Your task to perform on an android device: Go to CNN.com Image 0: 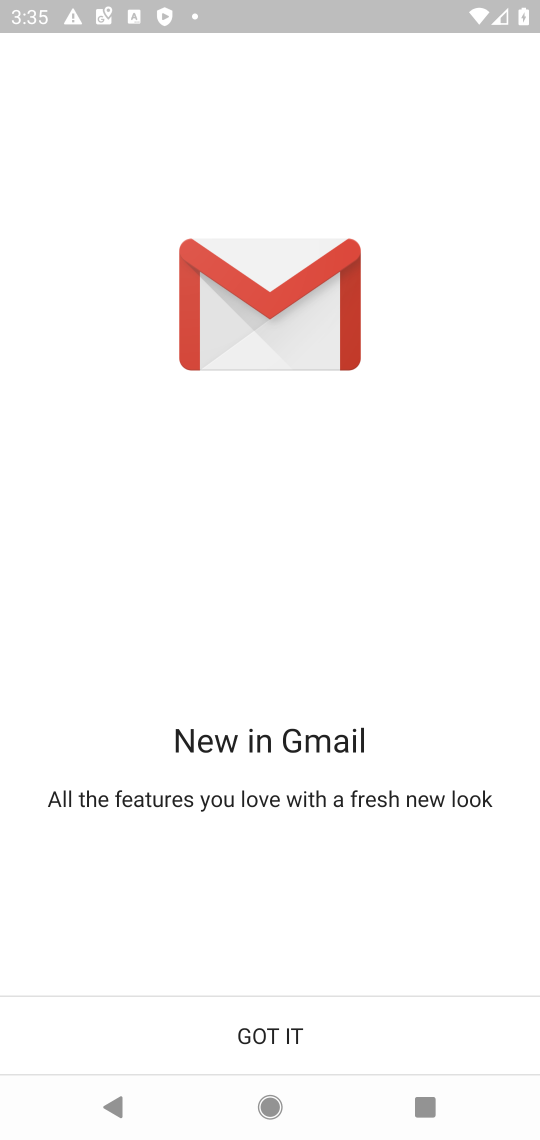
Step 0: click (336, 1115)
Your task to perform on an android device: Go to CNN.com Image 1: 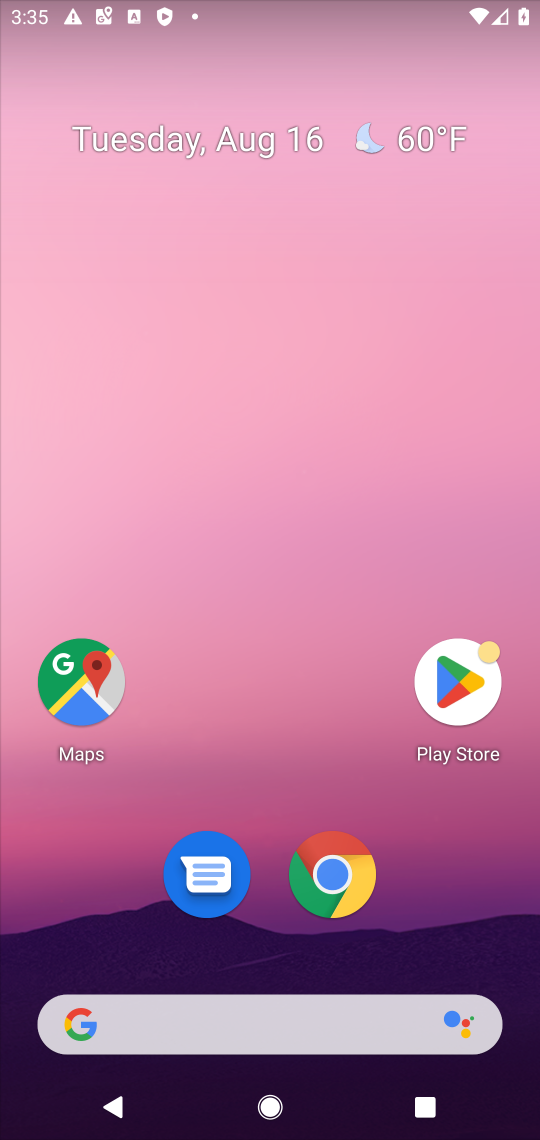
Step 1: click (347, 886)
Your task to perform on an android device: Go to CNN.com Image 2: 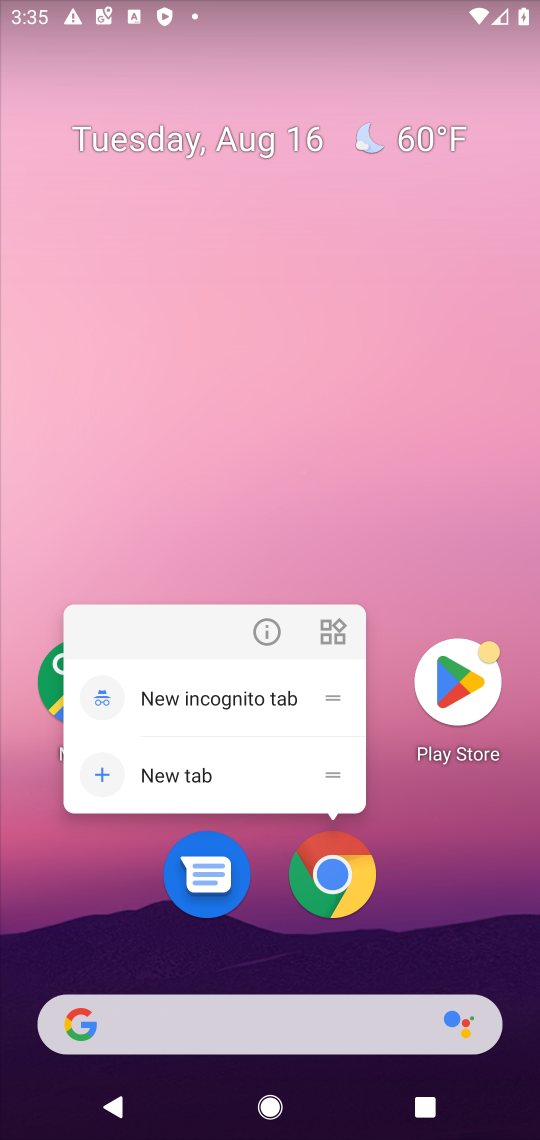
Step 2: click (327, 854)
Your task to perform on an android device: Go to CNN.com Image 3: 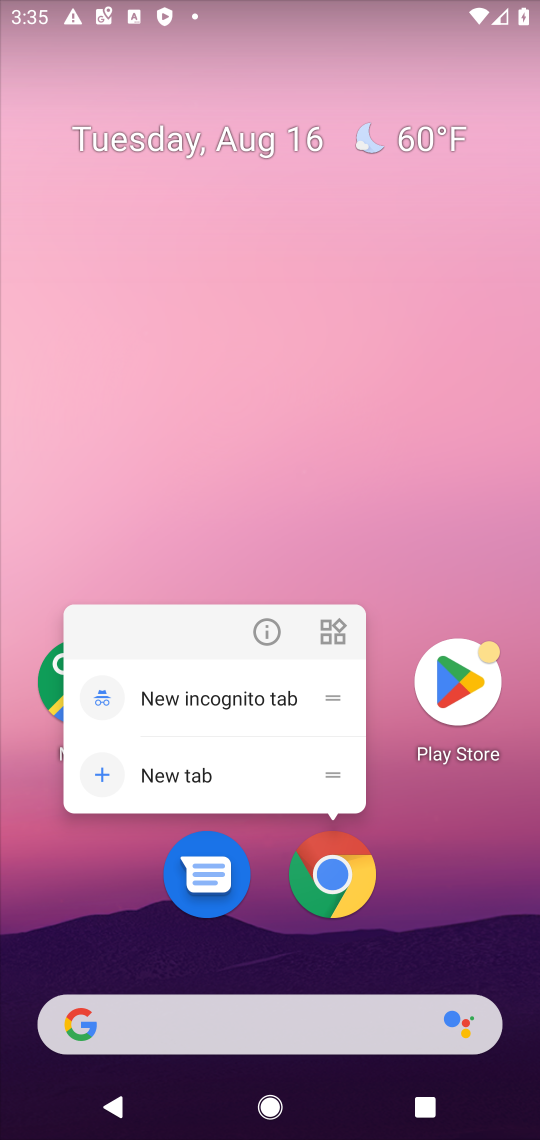
Step 3: click (331, 884)
Your task to perform on an android device: Go to CNN.com Image 4: 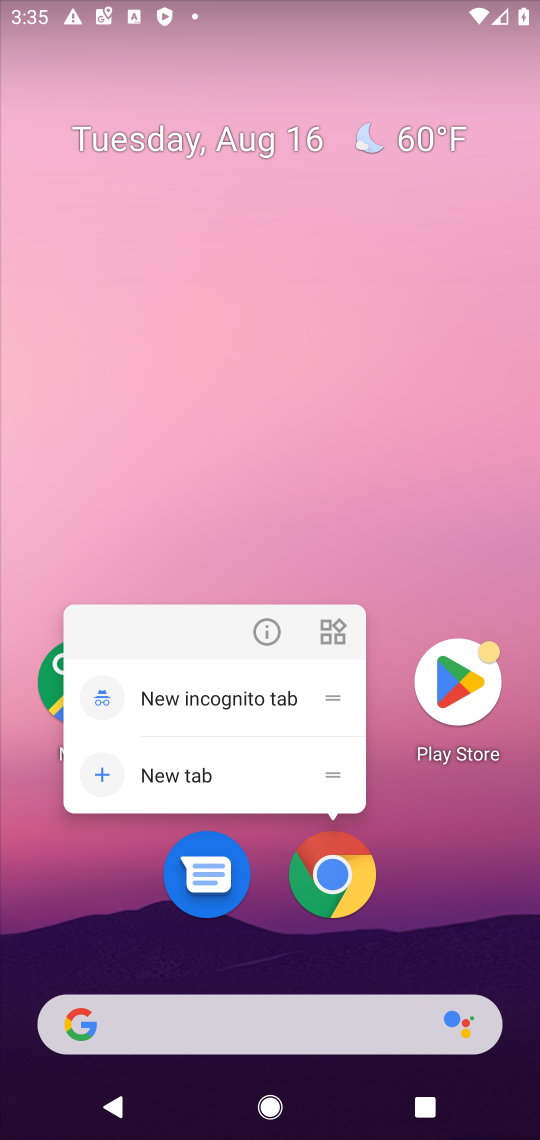
Step 4: click (328, 417)
Your task to perform on an android device: Go to CNN.com Image 5: 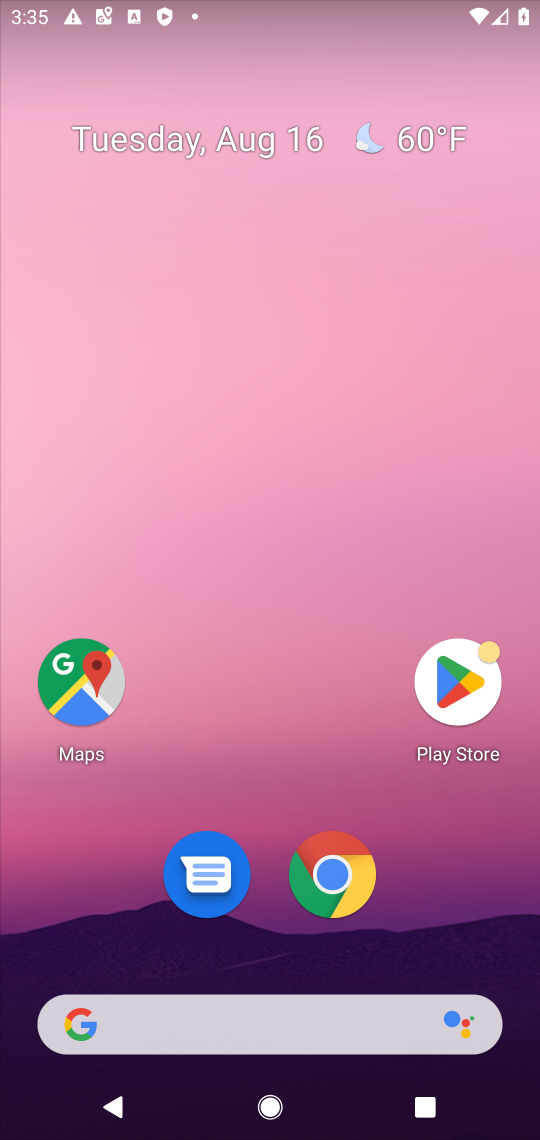
Step 5: click (326, 883)
Your task to perform on an android device: Go to CNN.com Image 6: 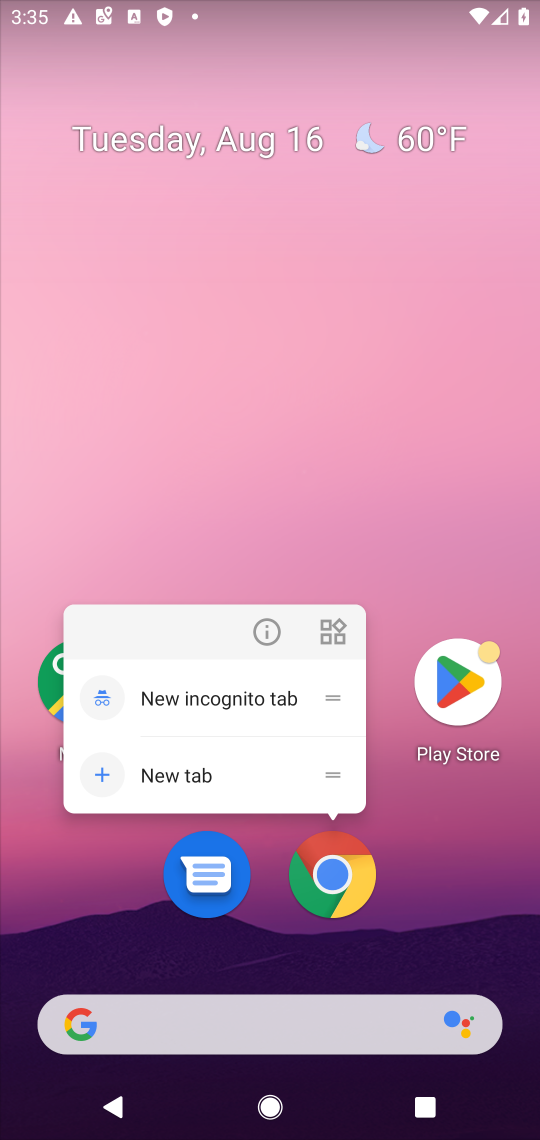
Step 6: click (326, 883)
Your task to perform on an android device: Go to CNN.com Image 7: 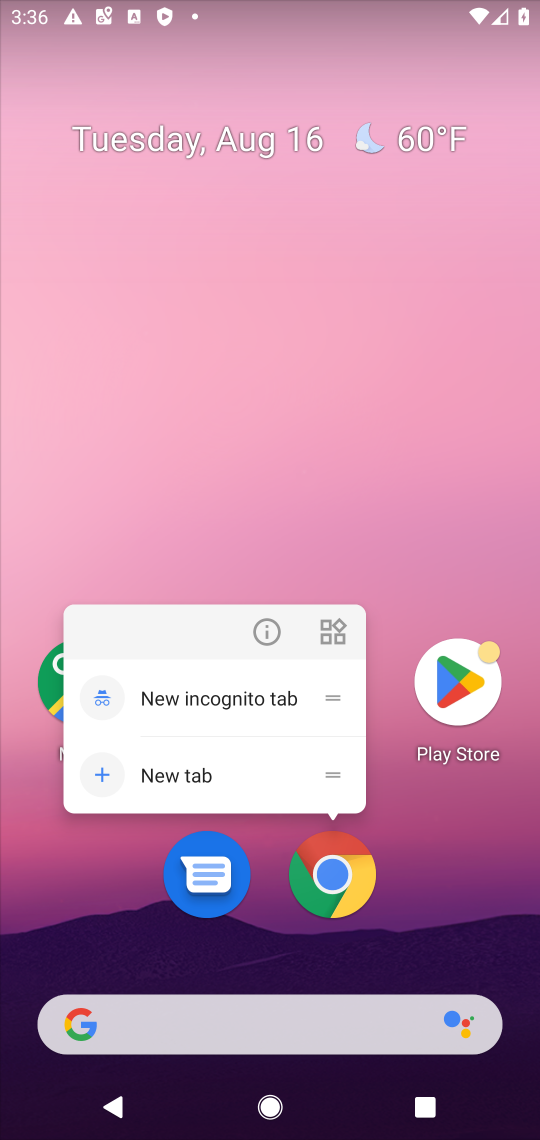
Step 7: click (324, 880)
Your task to perform on an android device: Go to CNN.com Image 8: 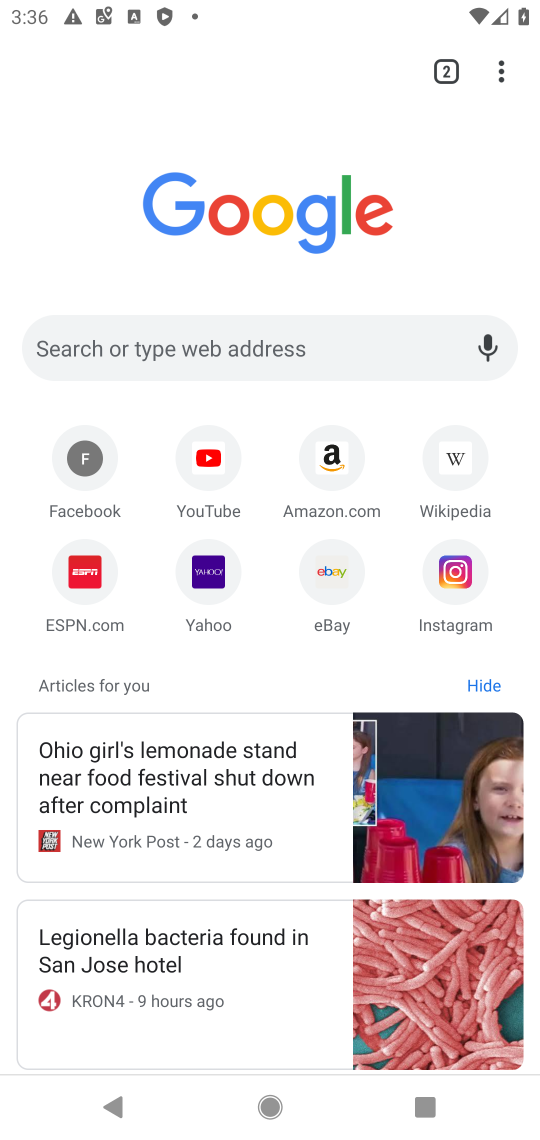
Step 8: task complete